Your task to perform on an android device: Open Chrome and go to settings Image 0: 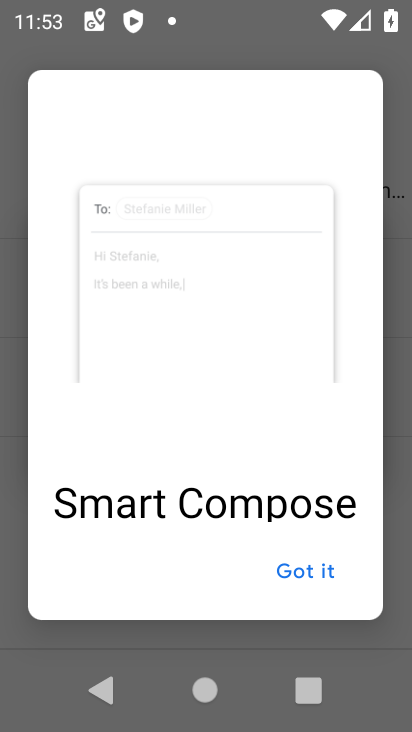
Step 0: press home button
Your task to perform on an android device: Open Chrome and go to settings Image 1: 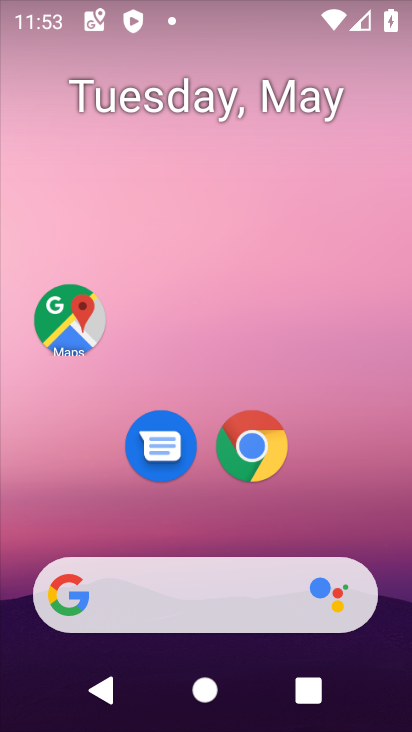
Step 1: click (246, 445)
Your task to perform on an android device: Open Chrome and go to settings Image 2: 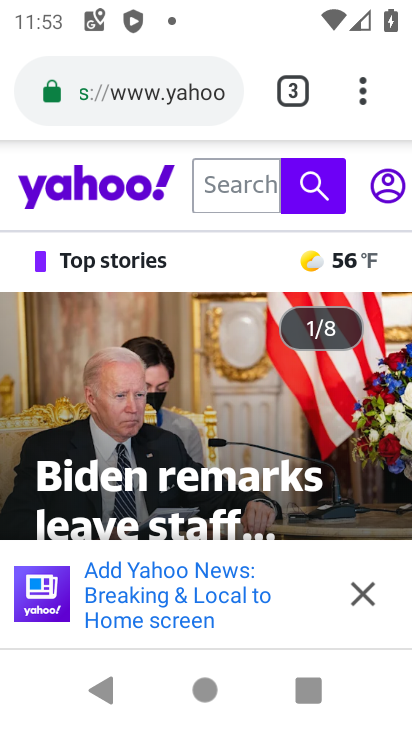
Step 2: click (362, 99)
Your task to perform on an android device: Open Chrome and go to settings Image 3: 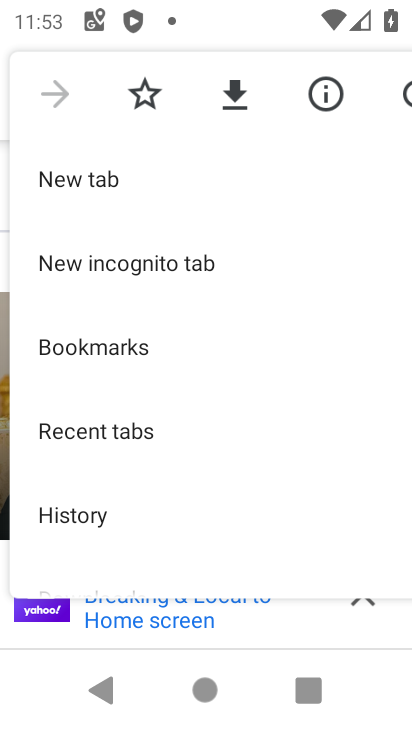
Step 3: drag from (119, 527) to (125, 207)
Your task to perform on an android device: Open Chrome and go to settings Image 4: 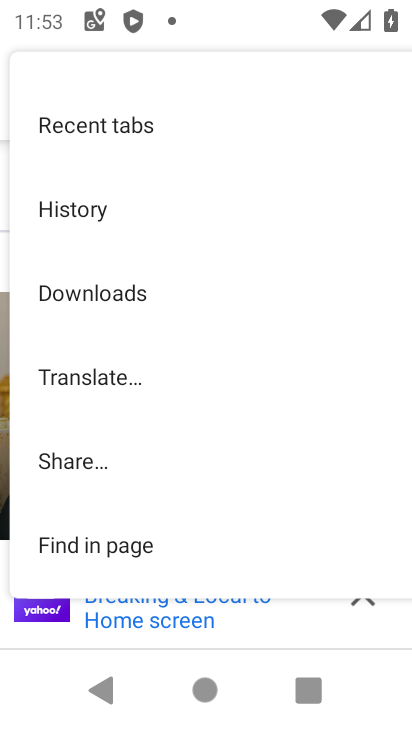
Step 4: drag from (123, 368) to (120, 261)
Your task to perform on an android device: Open Chrome and go to settings Image 5: 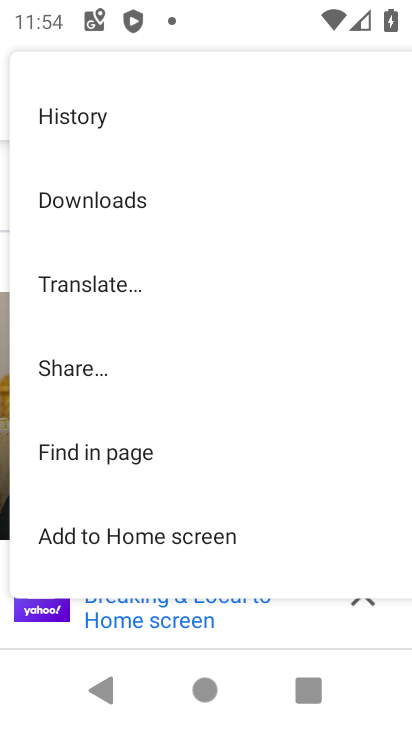
Step 5: drag from (149, 563) to (151, 211)
Your task to perform on an android device: Open Chrome and go to settings Image 6: 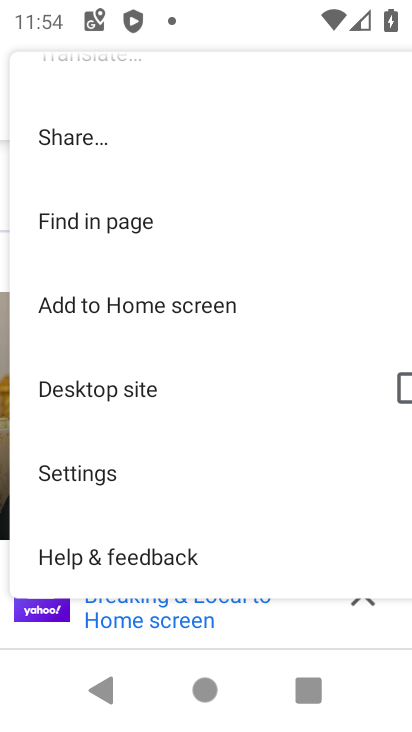
Step 6: click (84, 472)
Your task to perform on an android device: Open Chrome and go to settings Image 7: 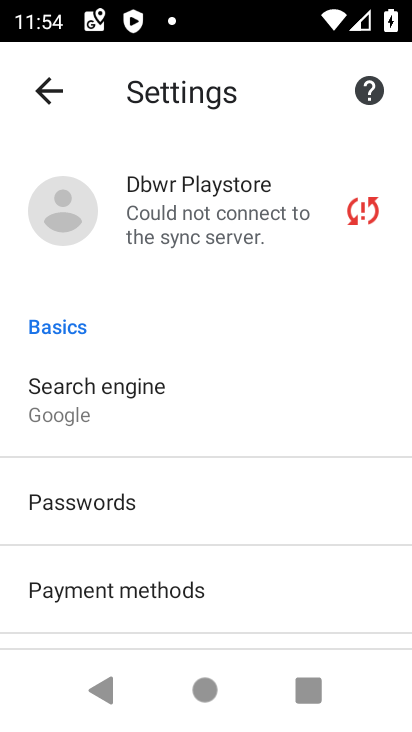
Step 7: task complete